Your task to perform on an android device: Do I have any events today? Image 0: 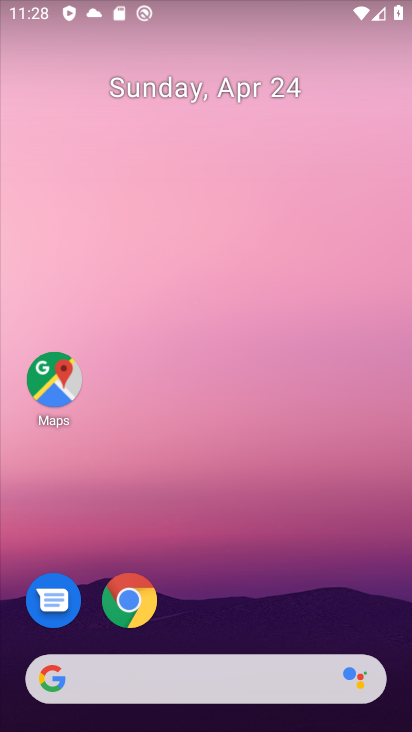
Step 0: drag from (242, 581) to (335, 76)
Your task to perform on an android device: Do I have any events today? Image 1: 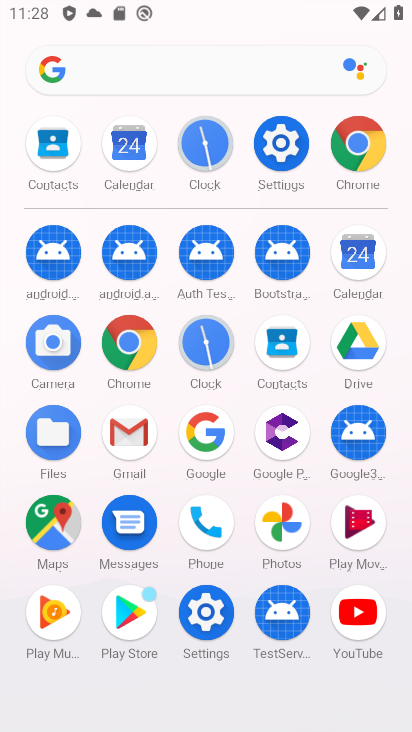
Step 1: click (355, 250)
Your task to perform on an android device: Do I have any events today? Image 2: 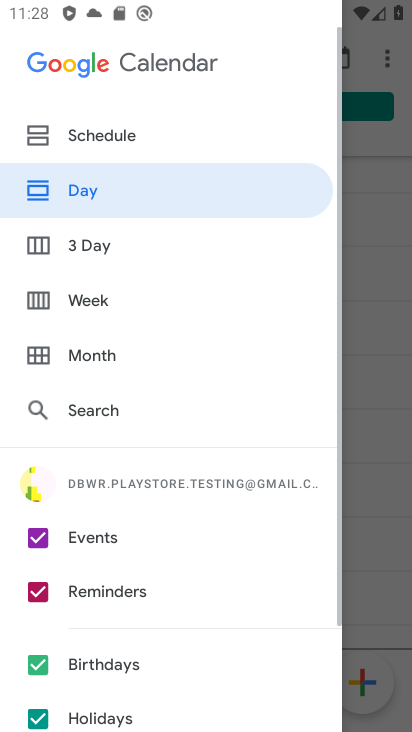
Step 2: click (96, 193)
Your task to perform on an android device: Do I have any events today? Image 3: 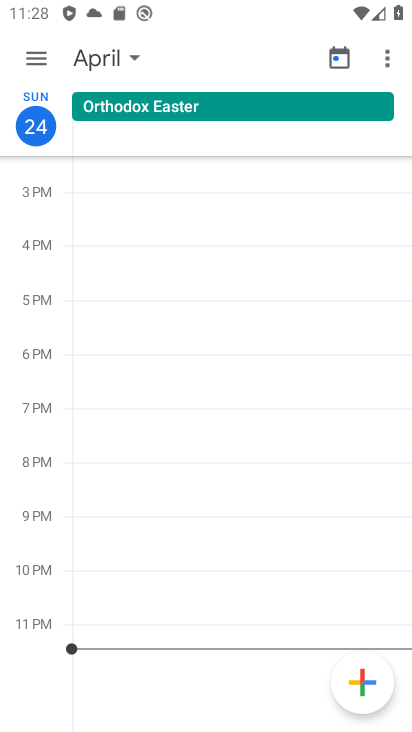
Step 3: task complete